Your task to perform on an android device: Go to Android settings Image 0: 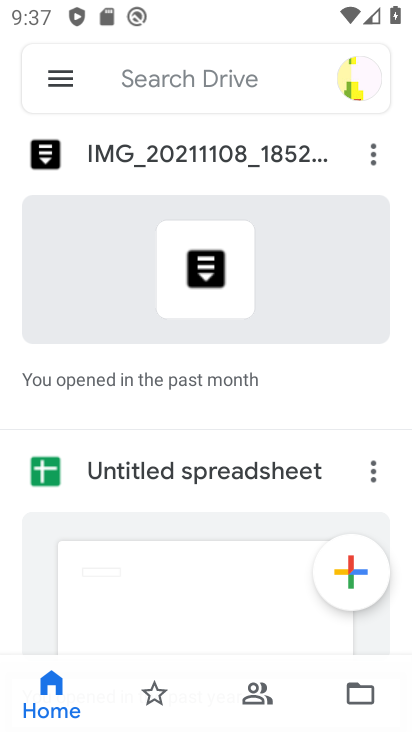
Step 0: press home button
Your task to perform on an android device: Go to Android settings Image 1: 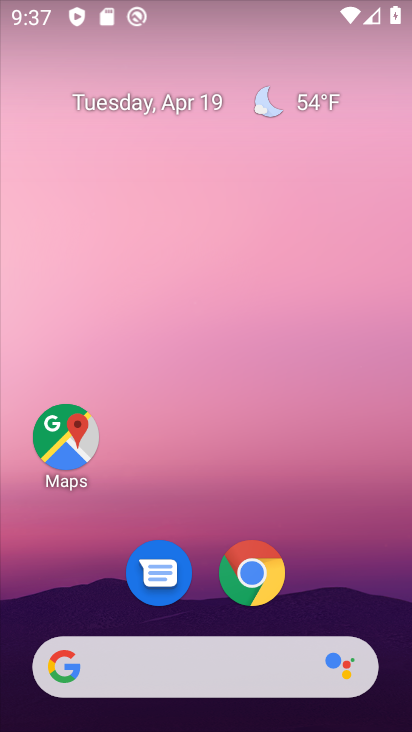
Step 1: drag from (380, 423) to (393, 10)
Your task to perform on an android device: Go to Android settings Image 2: 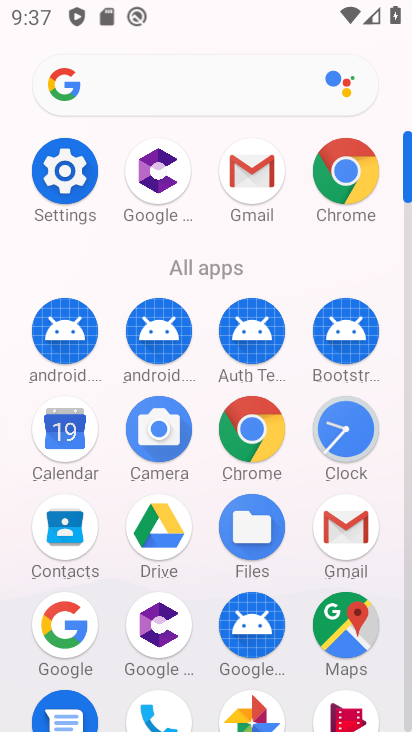
Step 2: click (64, 179)
Your task to perform on an android device: Go to Android settings Image 3: 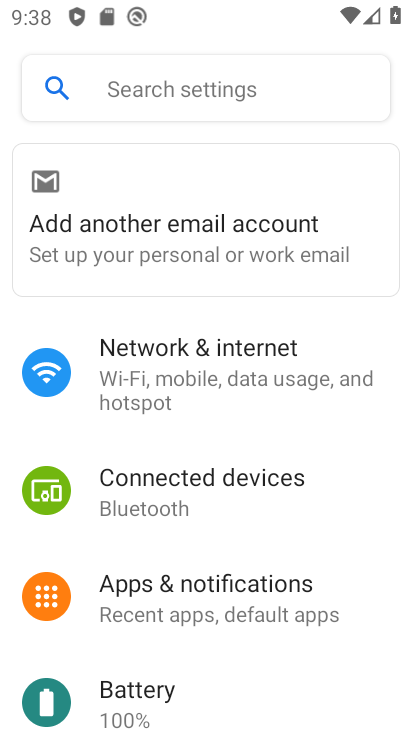
Step 3: drag from (374, 558) to (354, 144)
Your task to perform on an android device: Go to Android settings Image 4: 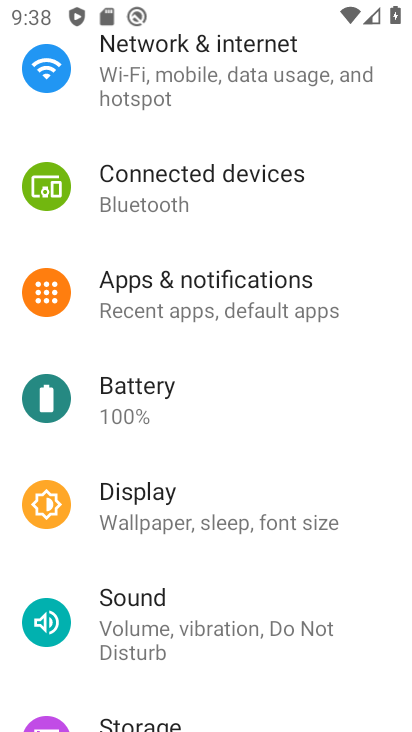
Step 4: drag from (376, 615) to (378, 116)
Your task to perform on an android device: Go to Android settings Image 5: 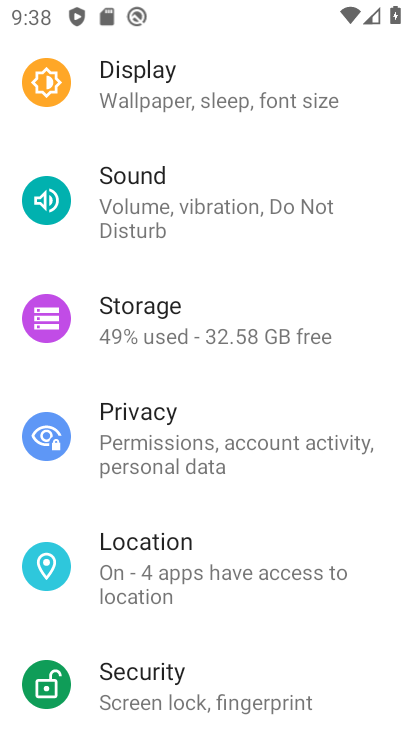
Step 5: drag from (341, 656) to (351, 164)
Your task to perform on an android device: Go to Android settings Image 6: 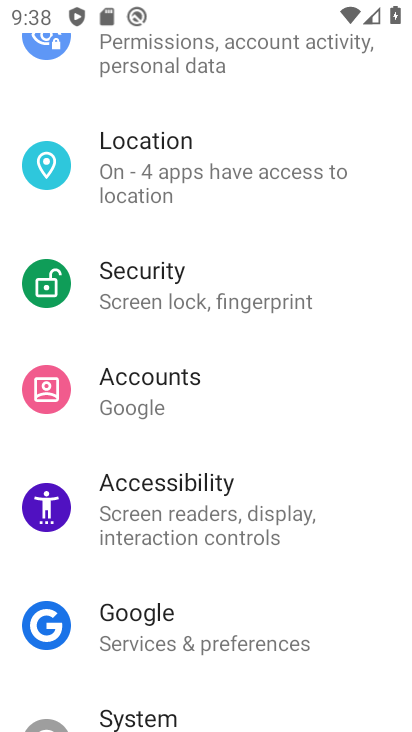
Step 6: drag from (325, 665) to (311, 201)
Your task to perform on an android device: Go to Android settings Image 7: 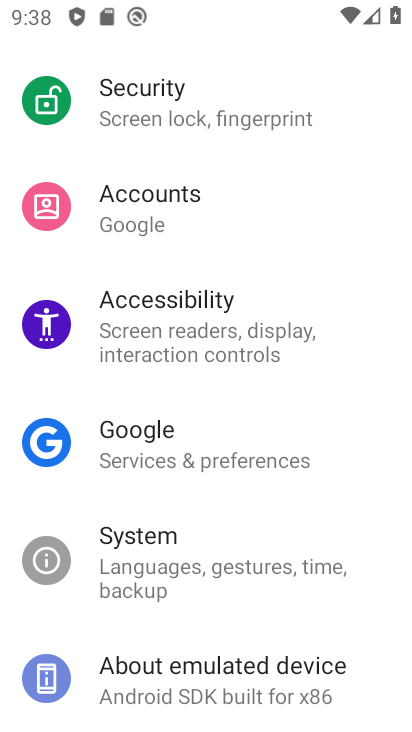
Step 7: click (142, 562)
Your task to perform on an android device: Go to Android settings Image 8: 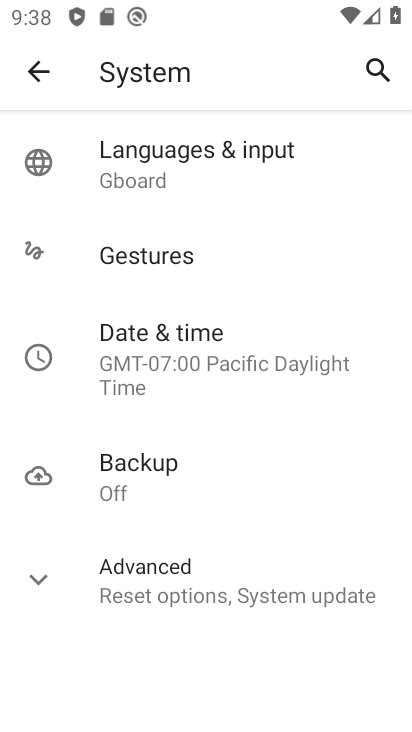
Step 8: click (38, 585)
Your task to perform on an android device: Go to Android settings Image 9: 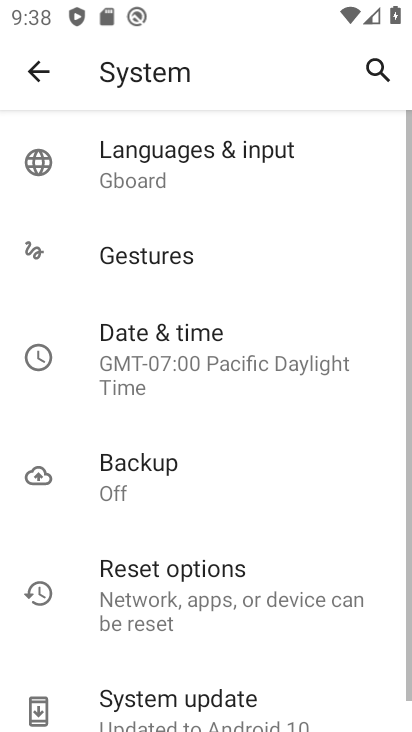
Step 9: task complete